Your task to perform on an android device: Open Chrome and go to settings Image 0: 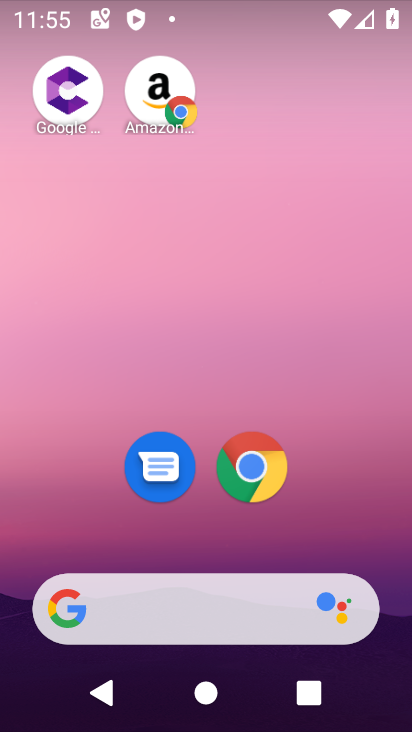
Step 0: click (267, 505)
Your task to perform on an android device: Open Chrome and go to settings Image 1: 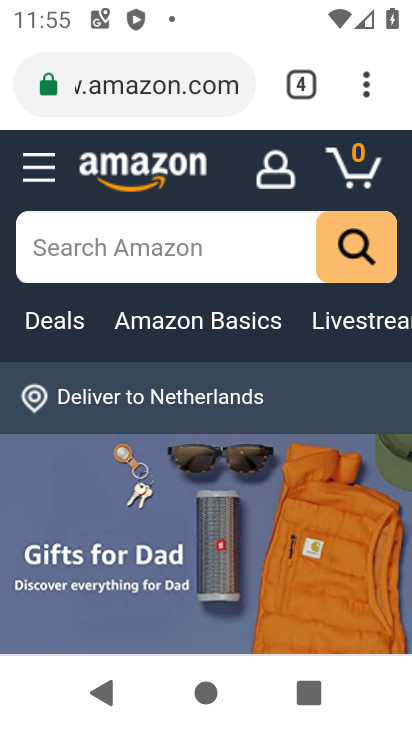
Step 1: click (379, 90)
Your task to perform on an android device: Open Chrome and go to settings Image 2: 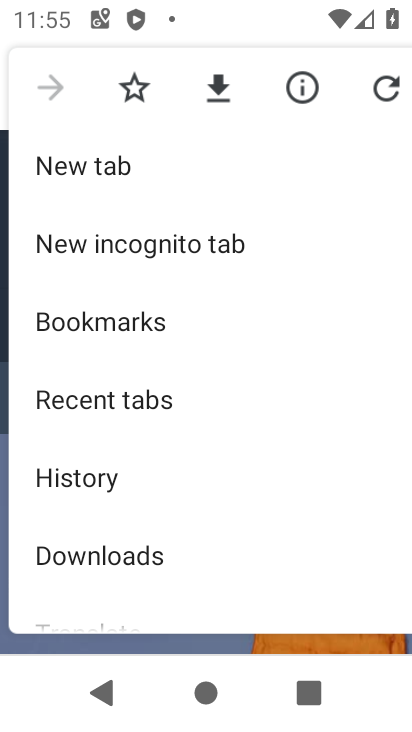
Step 2: drag from (225, 398) to (272, 121)
Your task to perform on an android device: Open Chrome and go to settings Image 3: 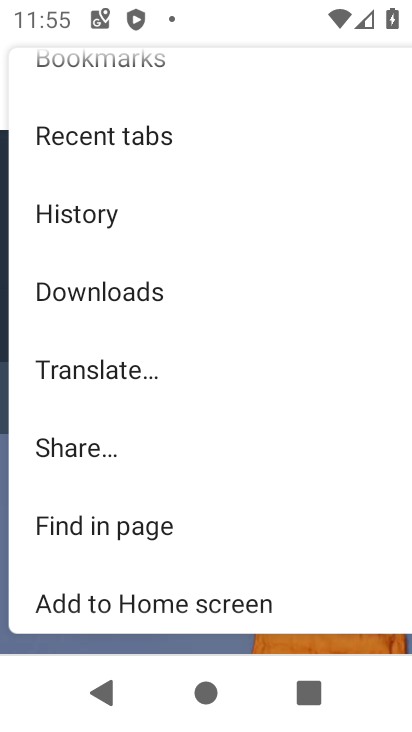
Step 3: drag from (246, 200) to (261, 88)
Your task to perform on an android device: Open Chrome and go to settings Image 4: 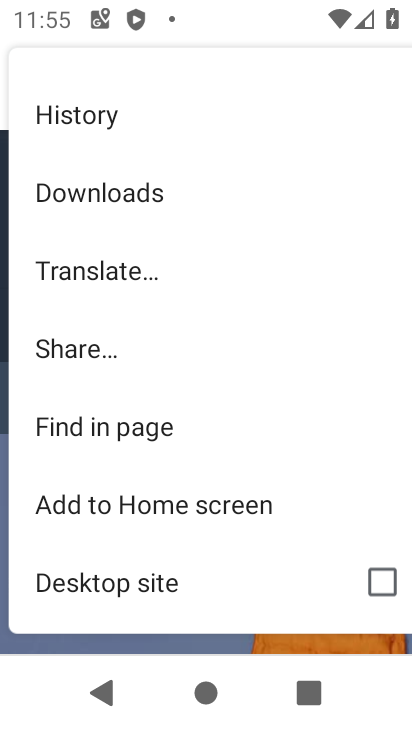
Step 4: drag from (248, 530) to (262, 168)
Your task to perform on an android device: Open Chrome and go to settings Image 5: 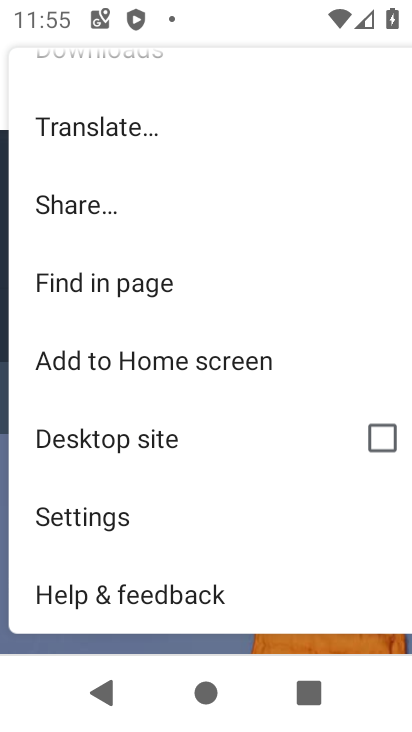
Step 5: click (162, 507)
Your task to perform on an android device: Open Chrome and go to settings Image 6: 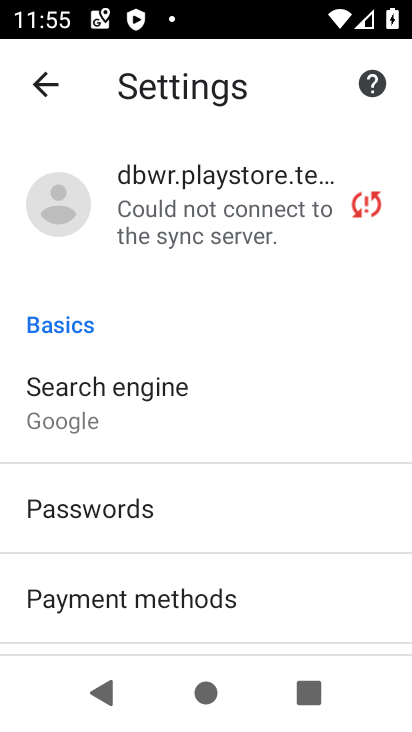
Step 6: task complete